Your task to perform on an android device: turn smart compose on in the gmail app Image 0: 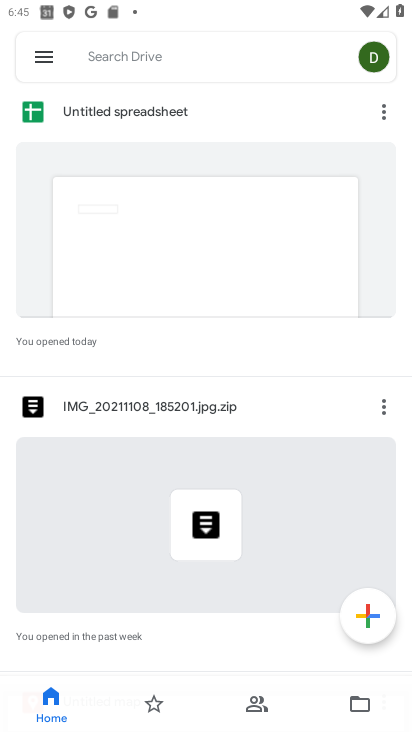
Step 0: press home button
Your task to perform on an android device: turn smart compose on in the gmail app Image 1: 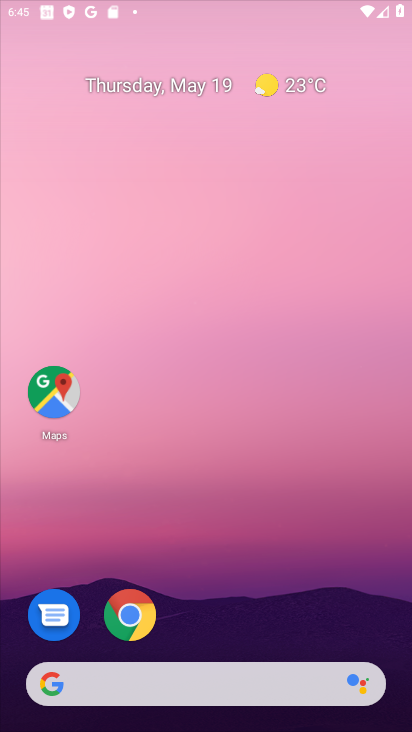
Step 1: drag from (343, 597) to (246, 69)
Your task to perform on an android device: turn smart compose on in the gmail app Image 2: 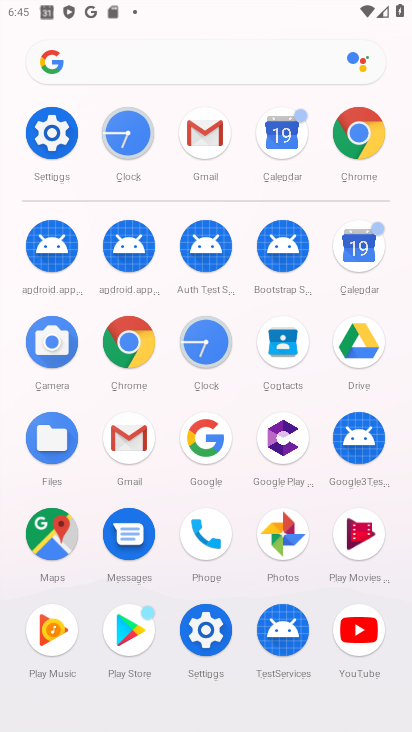
Step 2: click (131, 453)
Your task to perform on an android device: turn smart compose on in the gmail app Image 3: 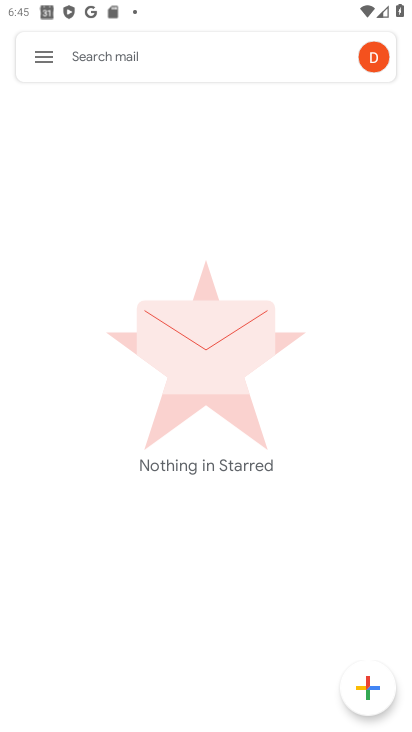
Step 3: click (49, 62)
Your task to perform on an android device: turn smart compose on in the gmail app Image 4: 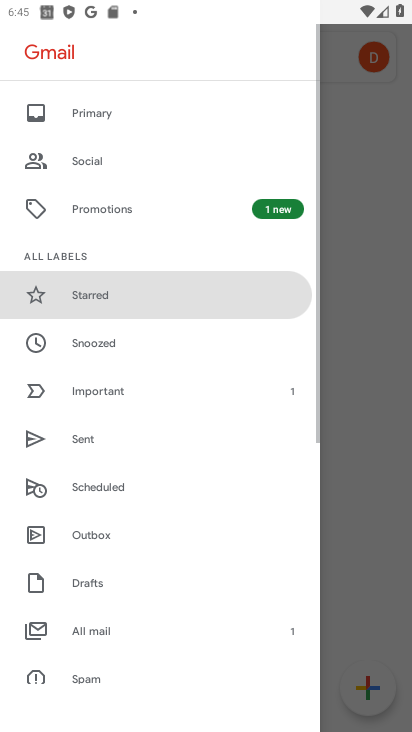
Step 4: drag from (54, 647) to (86, 174)
Your task to perform on an android device: turn smart compose on in the gmail app Image 5: 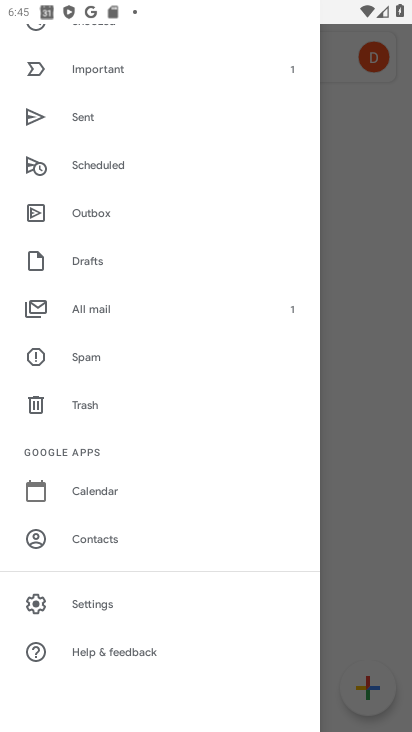
Step 5: click (112, 612)
Your task to perform on an android device: turn smart compose on in the gmail app Image 6: 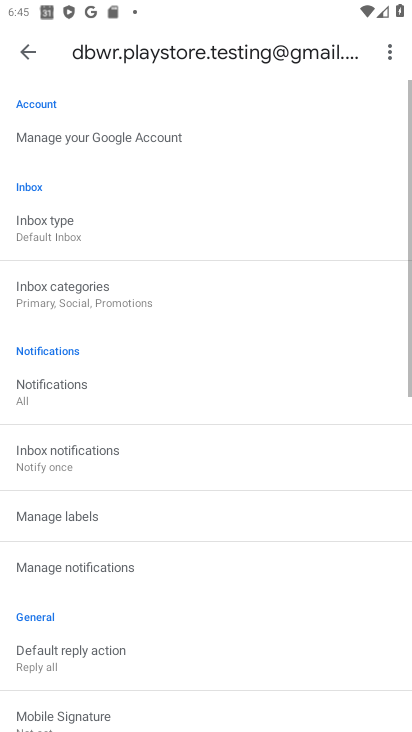
Step 6: task complete